Your task to perform on an android device: set default search engine in the chrome app Image 0: 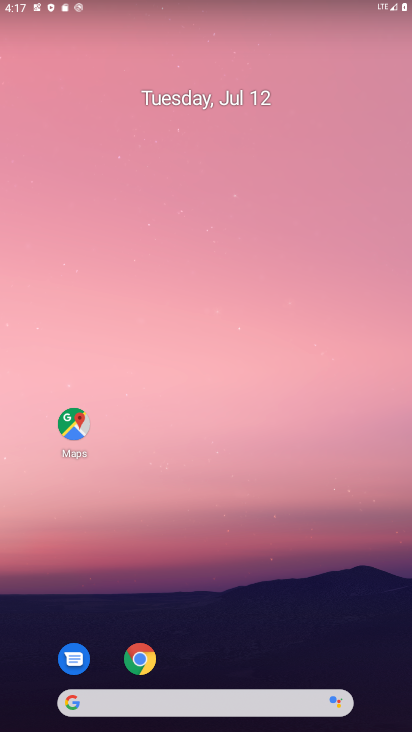
Step 0: click (138, 663)
Your task to perform on an android device: set default search engine in the chrome app Image 1: 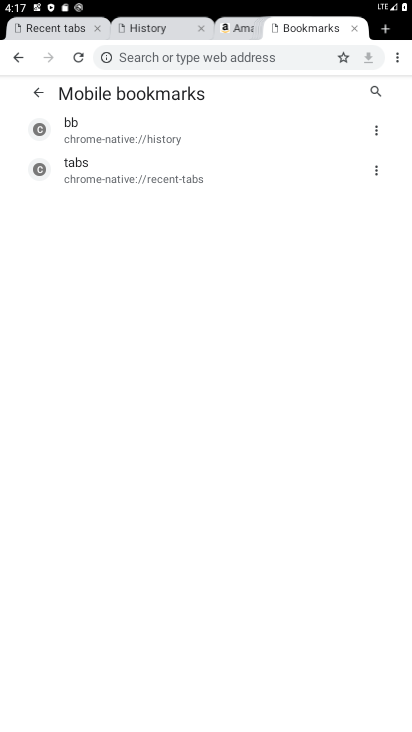
Step 1: click (395, 56)
Your task to perform on an android device: set default search engine in the chrome app Image 2: 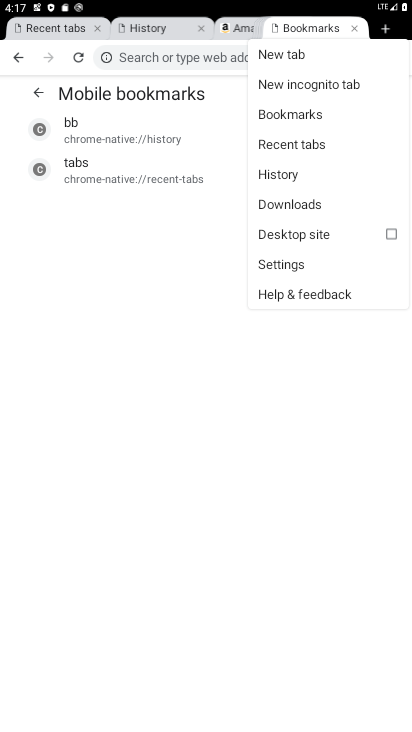
Step 2: click (277, 263)
Your task to perform on an android device: set default search engine in the chrome app Image 3: 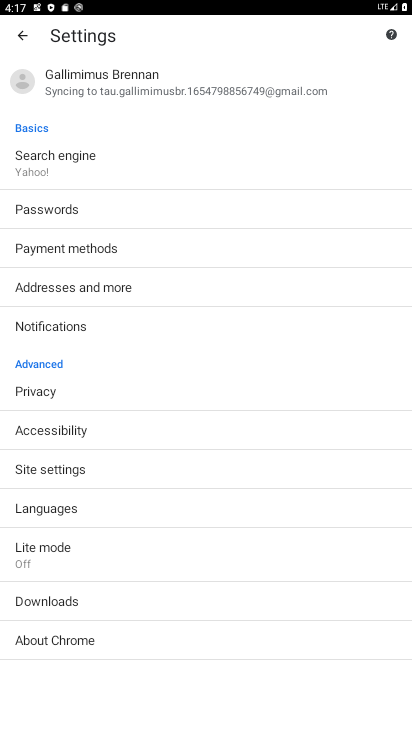
Step 3: click (49, 164)
Your task to perform on an android device: set default search engine in the chrome app Image 4: 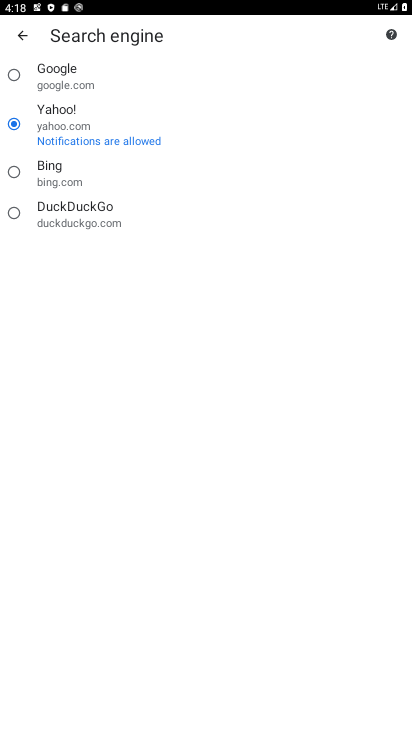
Step 4: click (14, 74)
Your task to perform on an android device: set default search engine in the chrome app Image 5: 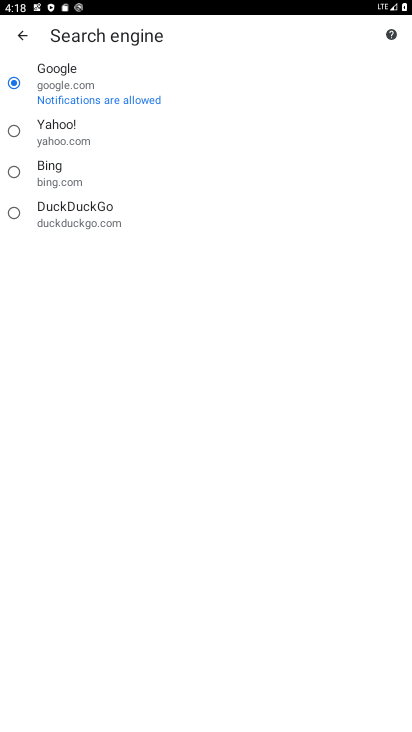
Step 5: task complete